Your task to perform on an android device: Go to Google Image 0: 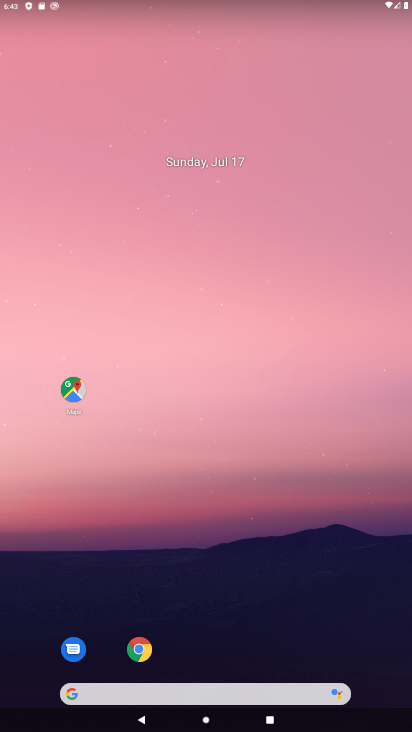
Step 0: click (79, 686)
Your task to perform on an android device: Go to Google Image 1: 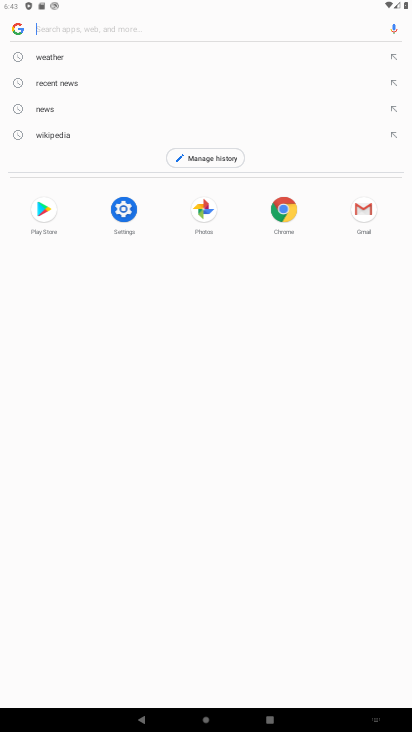
Step 1: click (18, 29)
Your task to perform on an android device: Go to Google Image 2: 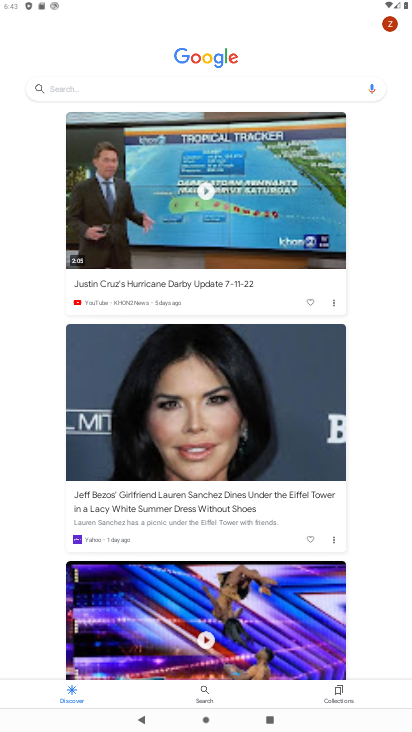
Step 2: task complete